Your task to perform on an android device: Play the last video I watched on Youtube Image 0: 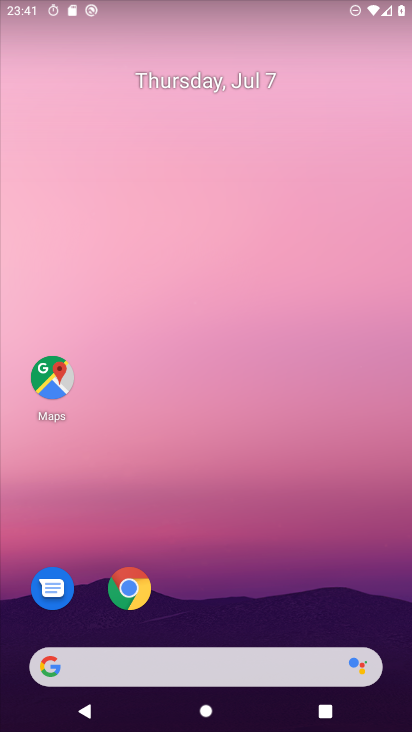
Step 0: drag from (275, 576) to (280, 101)
Your task to perform on an android device: Play the last video I watched on Youtube Image 1: 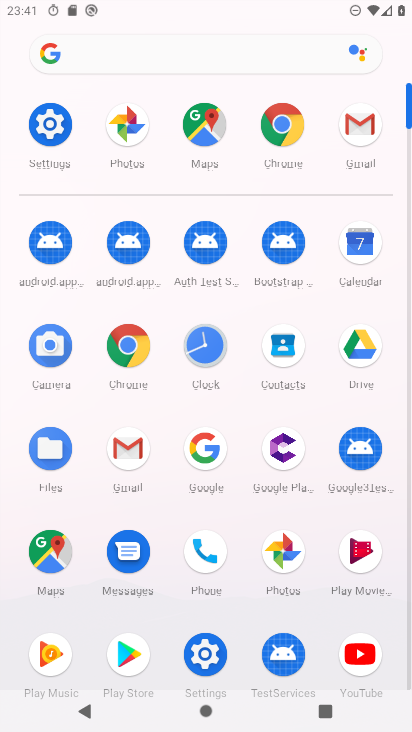
Step 1: click (365, 648)
Your task to perform on an android device: Play the last video I watched on Youtube Image 2: 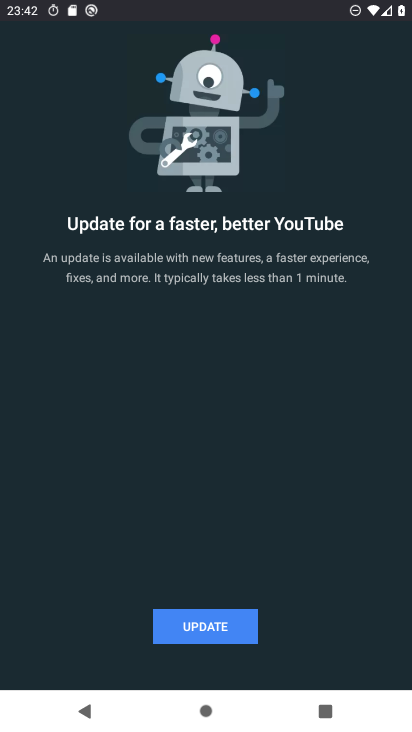
Step 2: task complete